Your task to perform on an android device: turn on airplane mode Image 0: 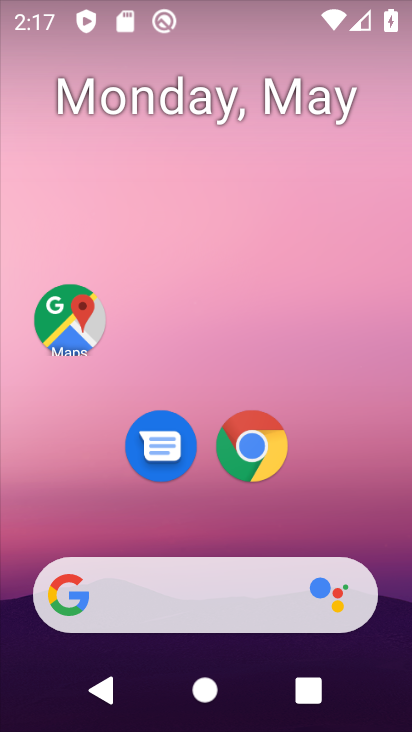
Step 0: drag from (394, 488) to (355, 85)
Your task to perform on an android device: turn on airplane mode Image 1: 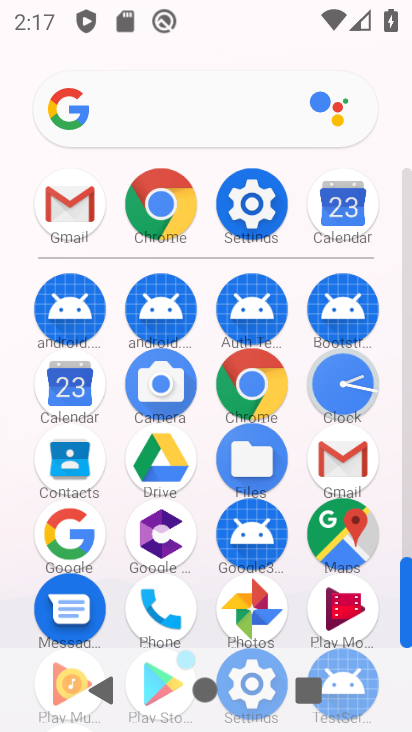
Step 1: click (268, 220)
Your task to perform on an android device: turn on airplane mode Image 2: 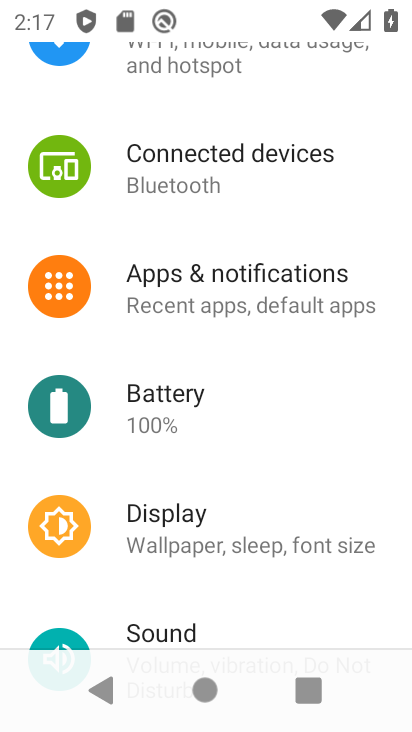
Step 2: drag from (268, 225) to (282, 545)
Your task to perform on an android device: turn on airplane mode Image 3: 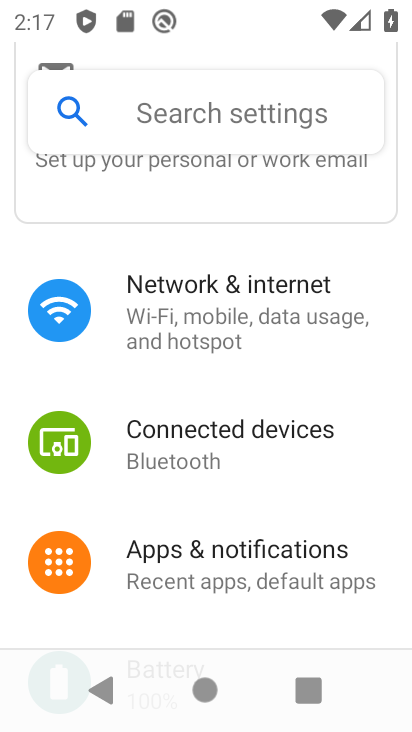
Step 3: click (243, 296)
Your task to perform on an android device: turn on airplane mode Image 4: 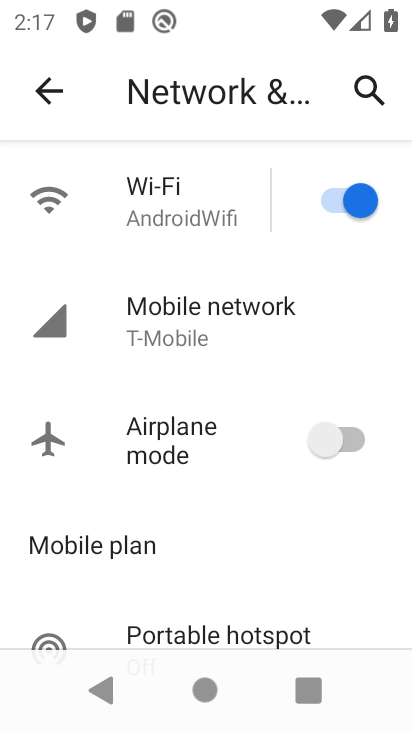
Step 4: click (334, 449)
Your task to perform on an android device: turn on airplane mode Image 5: 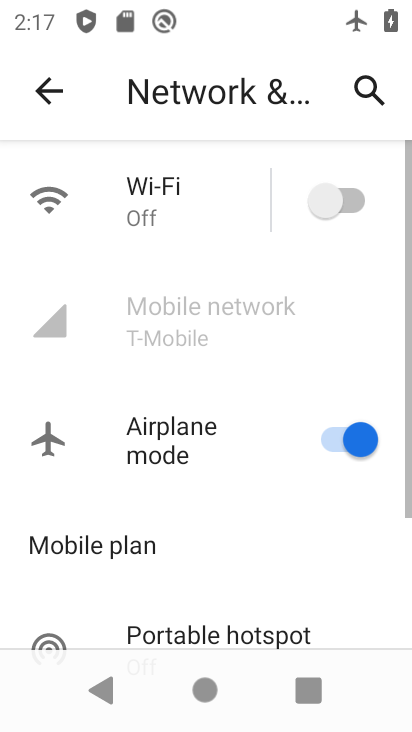
Step 5: task complete